Your task to perform on an android device: toggle location history Image 0: 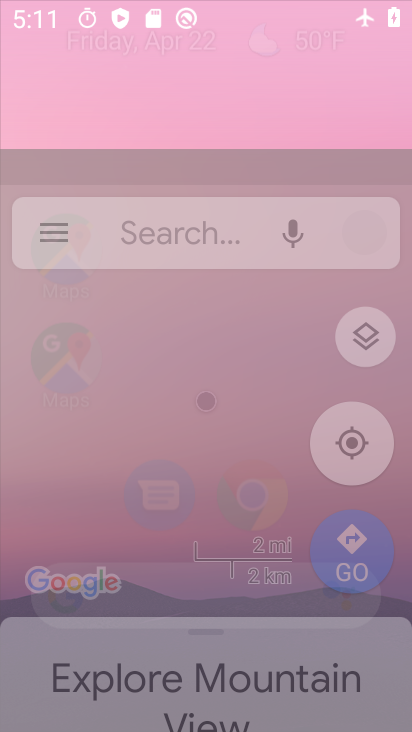
Step 0: click (328, 117)
Your task to perform on an android device: toggle location history Image 1: 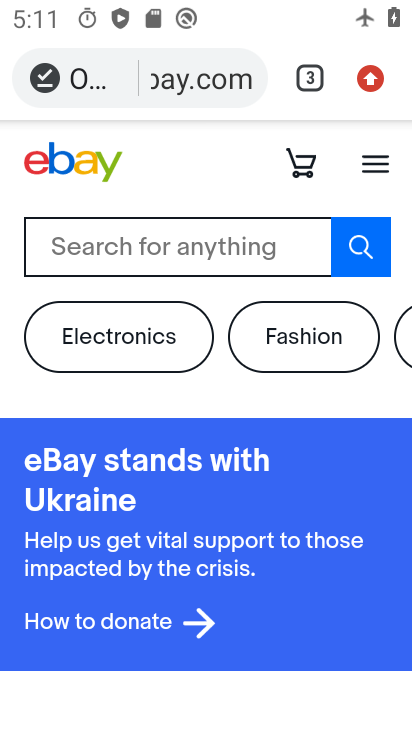
Step 1: press home button
Your task to perform on an android device: toggle location history Image 2: 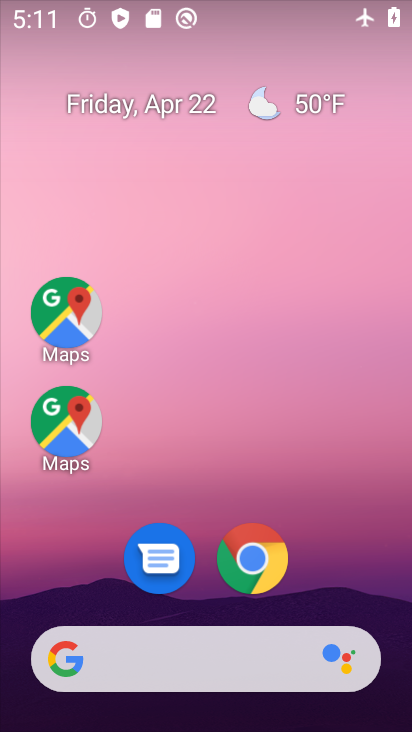
Step 2: drag from (324, 591) to (269, 97)
Your task to perform on an android device: toggle location history Image 3: 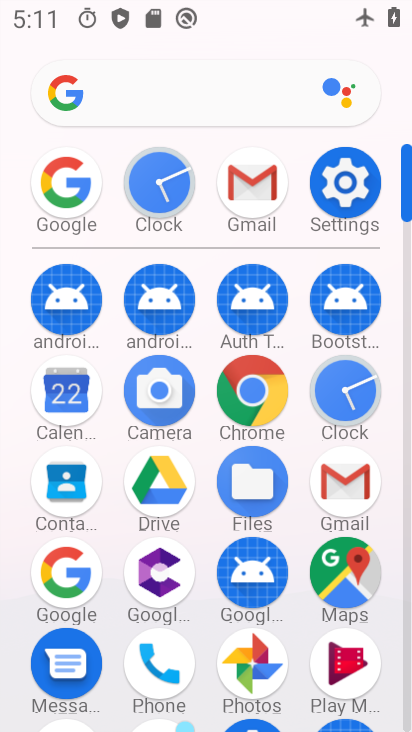
Step 3: click (346, 197)
Your task to perform on an android device: toggle location history Image 4: 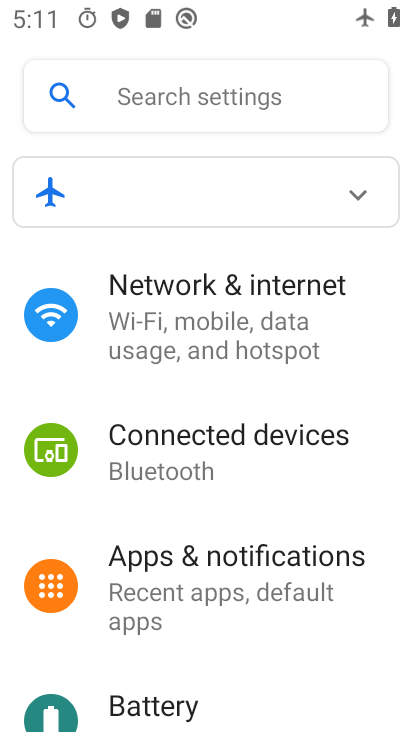
Step 4: drag from (254, 624) to (250, 314)
Your task to perform on an android device: toggle location history Image 5: 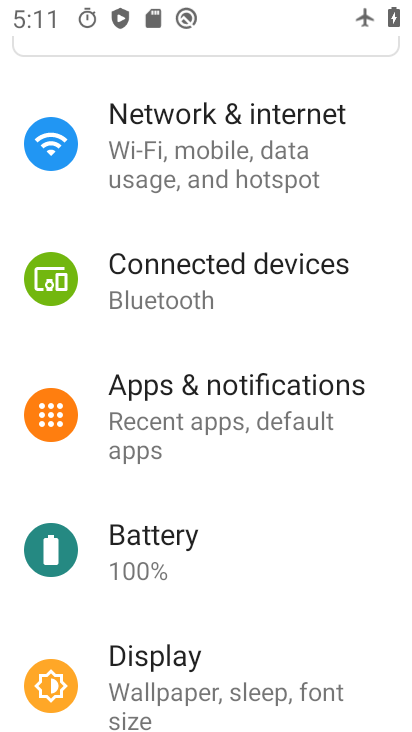
Step 5: drag from (222, 577) to (217, 275)
Your task to perform on an android device: toggle location history Image 6: 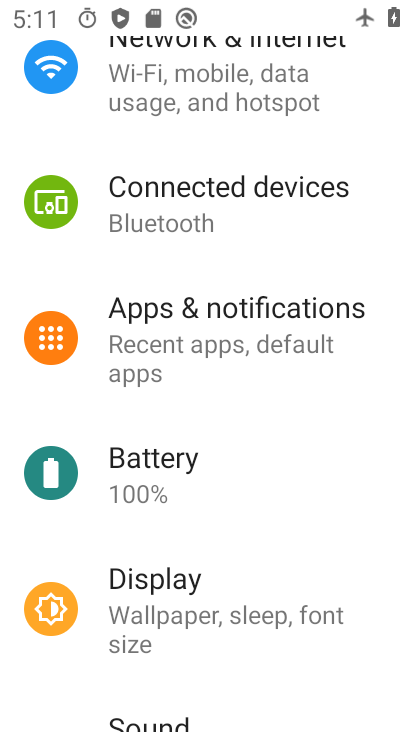
Step 6: drag from (219, 634) to (209, 244)
Your task to perform on an android device: toggle location history Image 7: 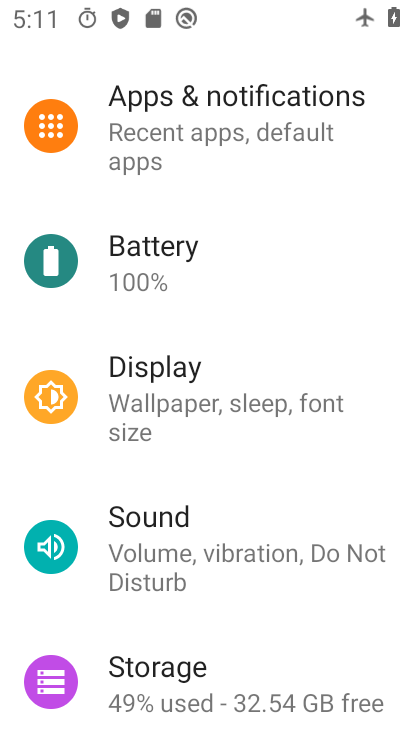
Step 7: drag from (212, 583) to (252, 242)
Your task to perform on an android device: toggle location history Image 8: 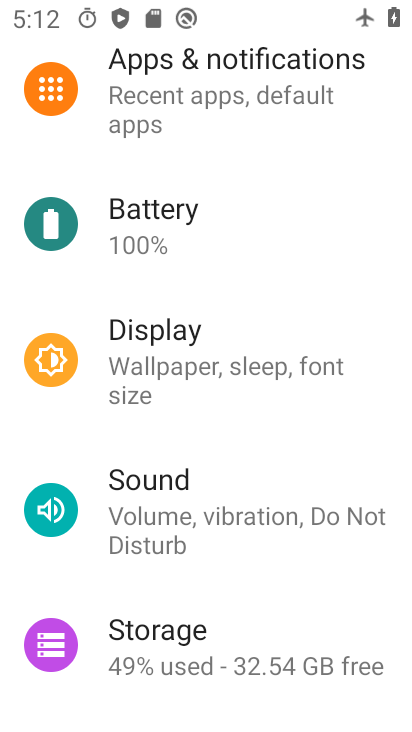
Step 8: drag from (212, 577) to (261, 275)
Your task to perform on an android device: toggle location history Image 9: 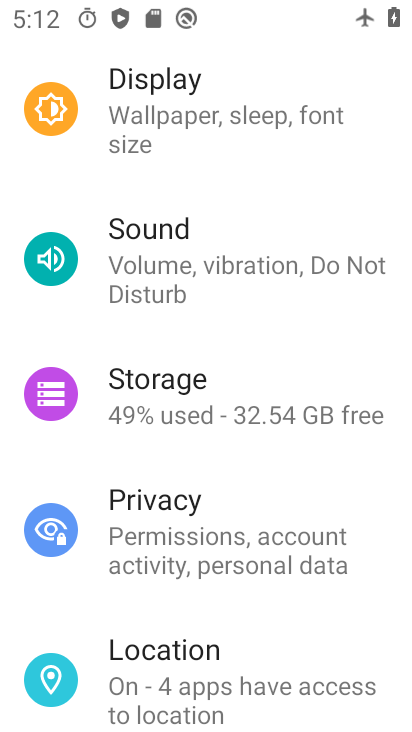
Step 9: click (175, 663)
Your task to perform on an android device: toggle location history Image 10: 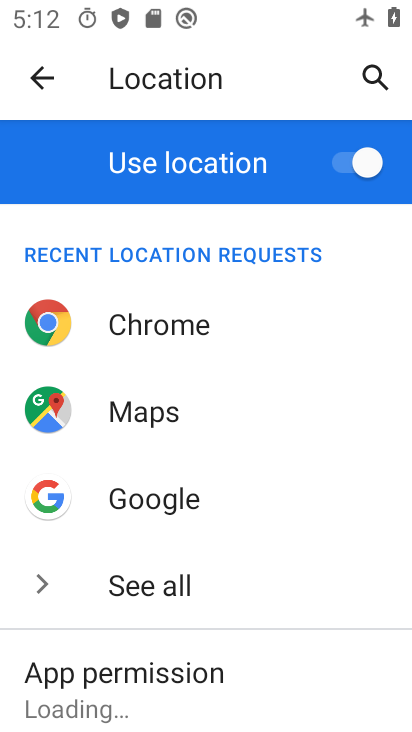
Step 10: drag from (212, 657) to (229, 273)
Your task to perform on an android device: toggle location history Image 11: 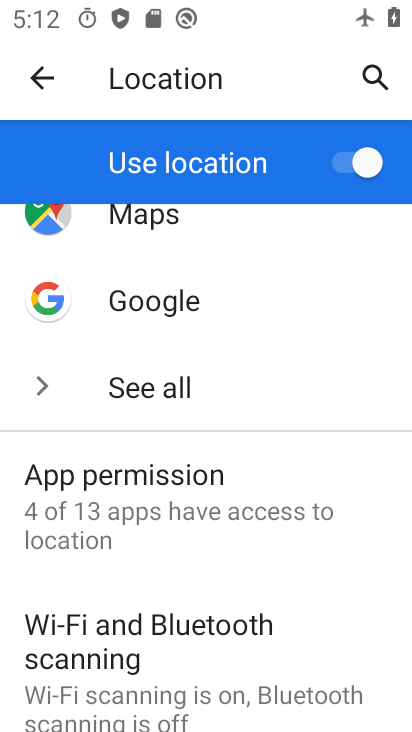
Step 11: drag from (204, 575) to (247, 185)
Your task to perform on an android device: toggle location history Image 12: 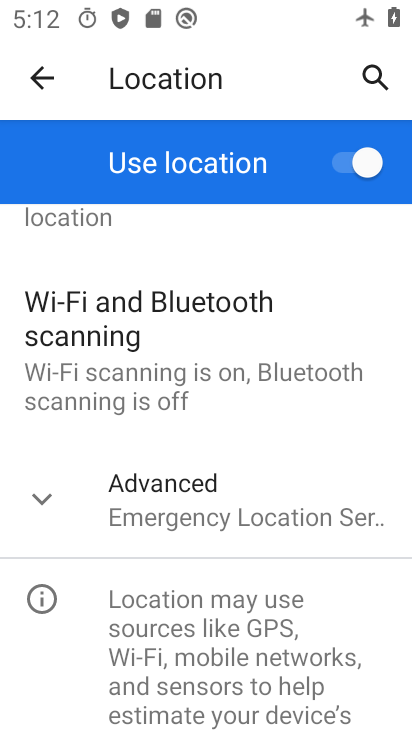
Step 12: click (142, 511)
Your task to perform on an android device: toggle location history Image 13: 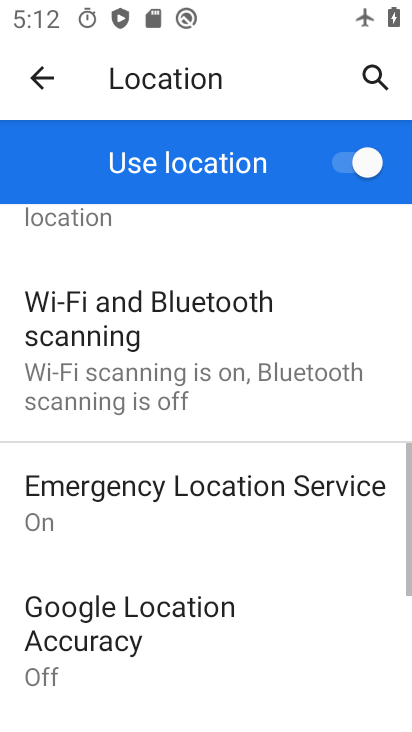
Step 13: drag from (177, 645) to (217, 386)
Your task to perform on an android device: toggle location history Image 14: 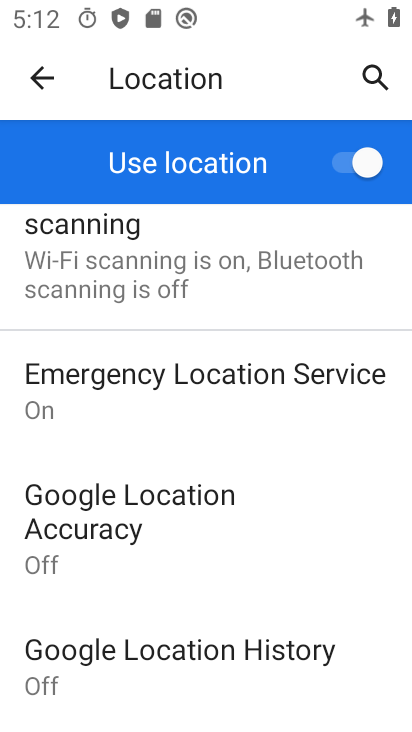
Step 14: drag from (162, 599) to (198, 348)
Your task to perform on an android device: toggle location history Image 15: 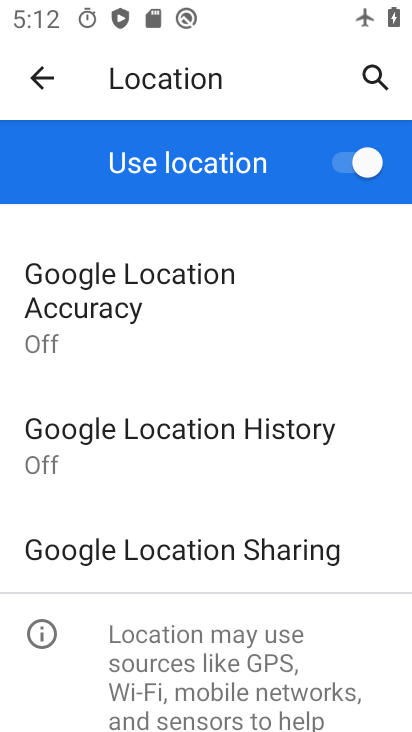
Step 15: click (111, 473)
Your task to perform on an android device: toggle location history Image 16: 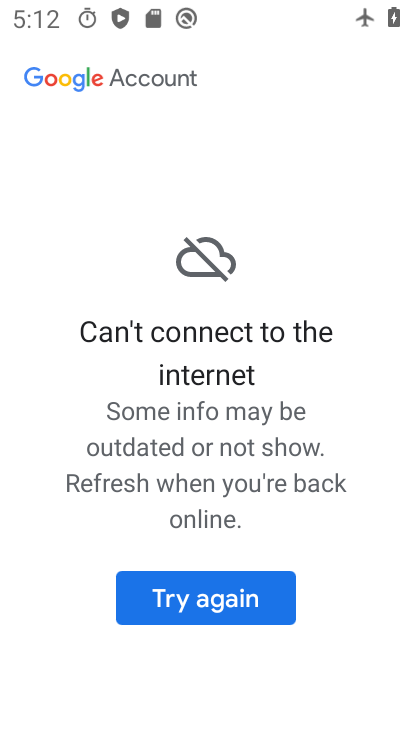
Step 16: task complete